Your task to perform on an android device: Is it going to rain this weekend? Image 0: 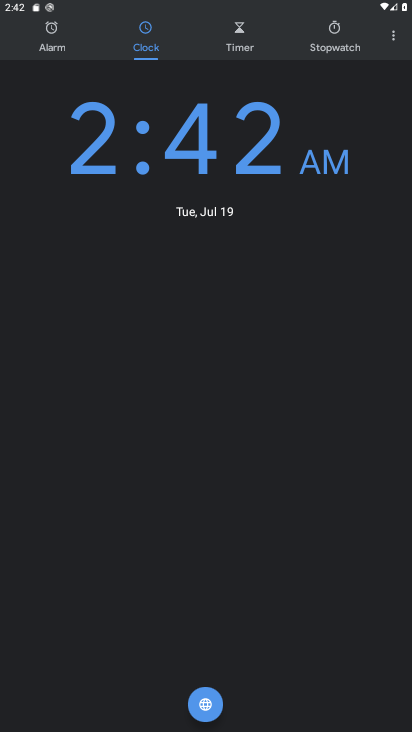
Step 0: press home button
Your task to perform on an android device: Is it going to rain this weekend? Image 1: 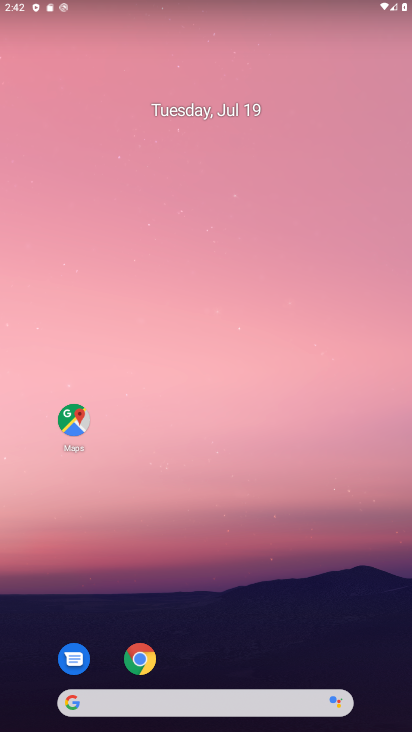
Step 1: click (248, 701)
Your task to perform on an android device: Is it going to rain this weekend? Image 2: 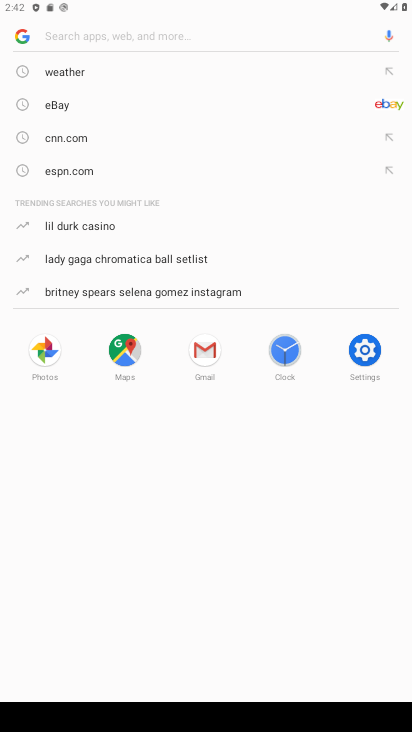
Step 2: type "is it going to rain this weekend"
Your task to perform on an android device: Is it going to rain this weekend? Image 3: 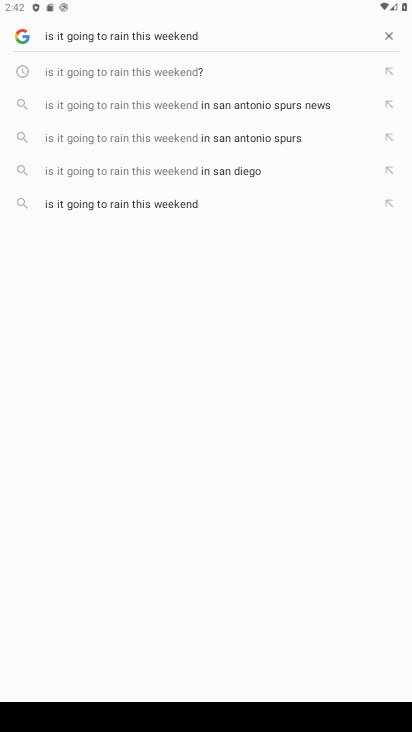
Step 3: click (50, 70)
Your task to perform on an android device: Is it going to rain this weekend? Image 4: 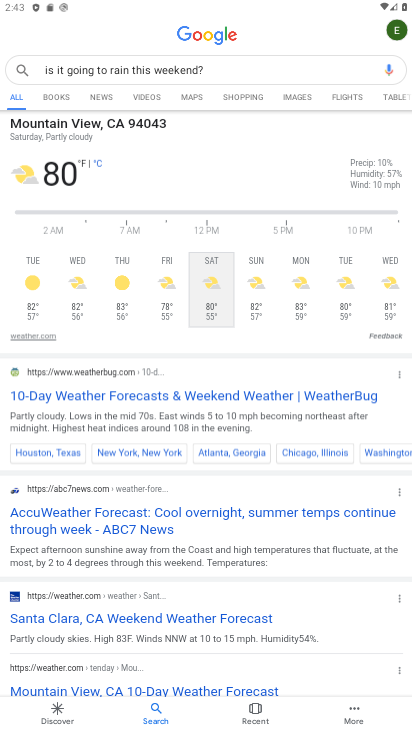
Step 4: task complete